Your task to perform on an android device: Search for bose quietcomfort 35 on costco.com, select the first entry, add it to the cart, then select checkout. Image 0: 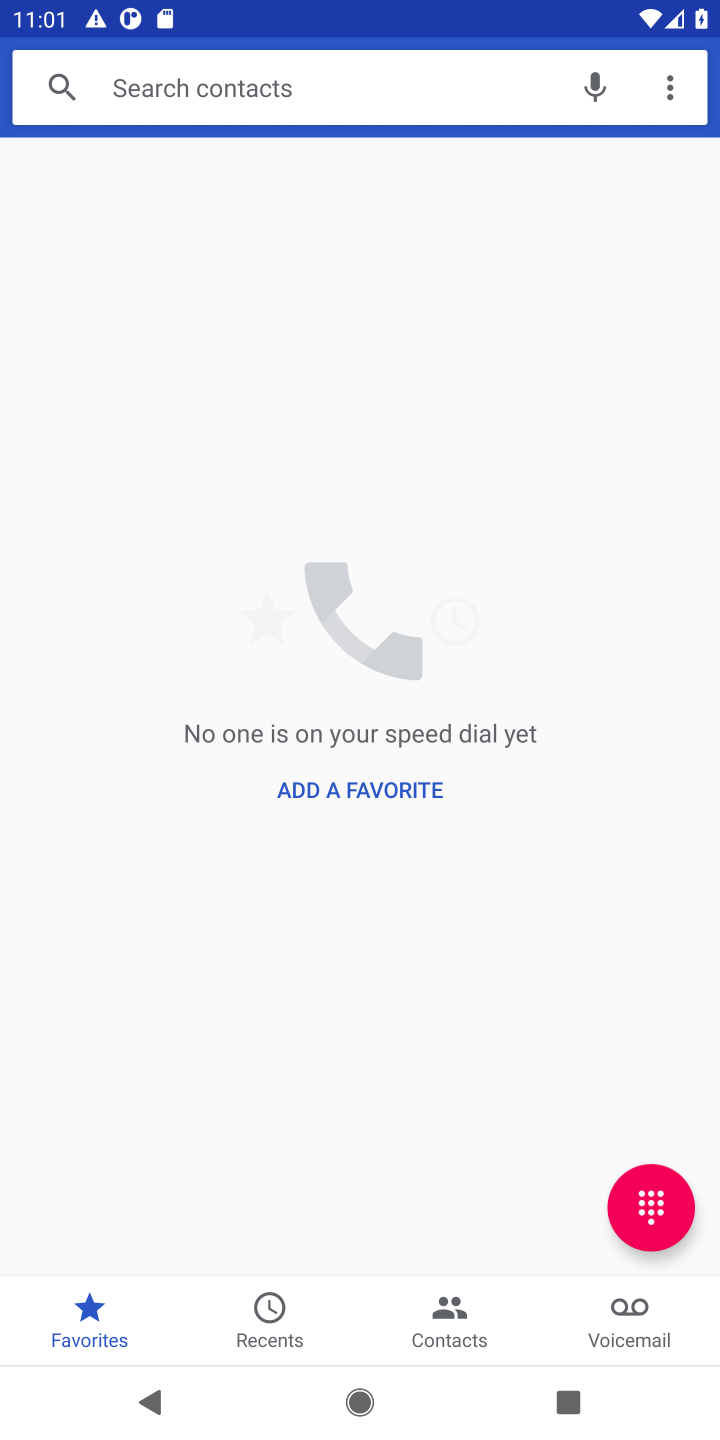
Step 0: press home button
Your task to perform on an android device: Search for bose quietcomfort 35 on costco.com, select the first entry, add it to the cart, then select checkout. Image 1: 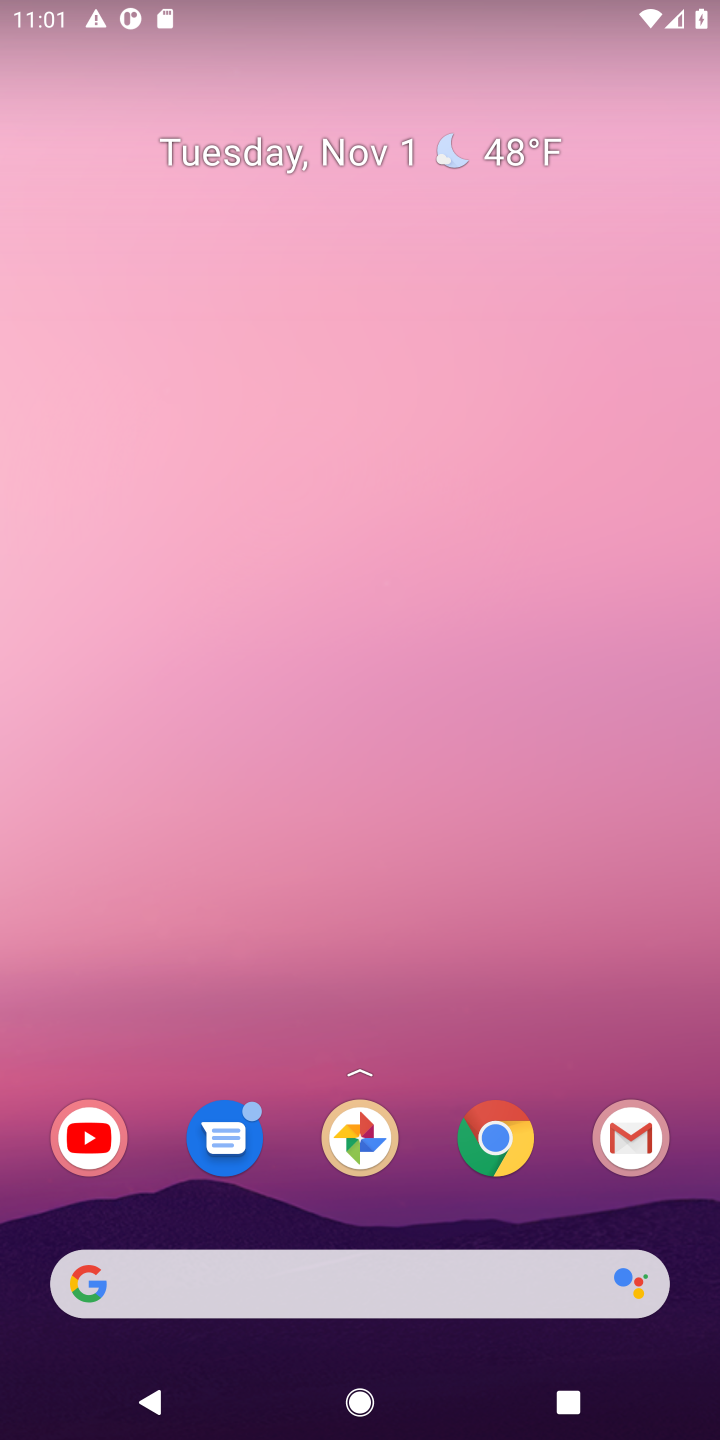
Step 1: drag from (425, 1080) to (459, 7)
Your task to perform on an android device: Search for bose quietcomfort 35 on costco.com, select the first entry, add it to the cart, then select checkout. Image 2: 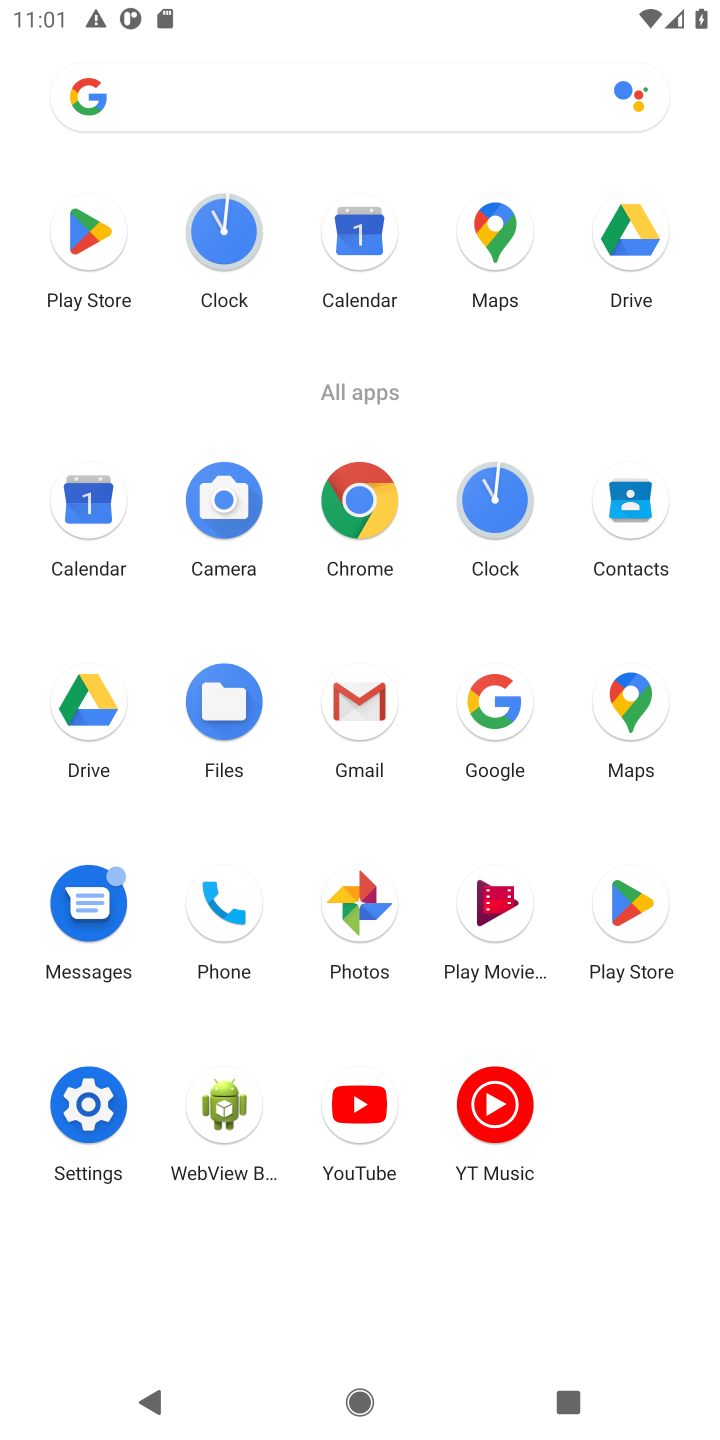
Step 2: click (354, 497)
Your task to perform on an android device: Search for bose quietcomfort 35 on costco.com, select the first entry, add it to the cart, then select checkout. Image 3: 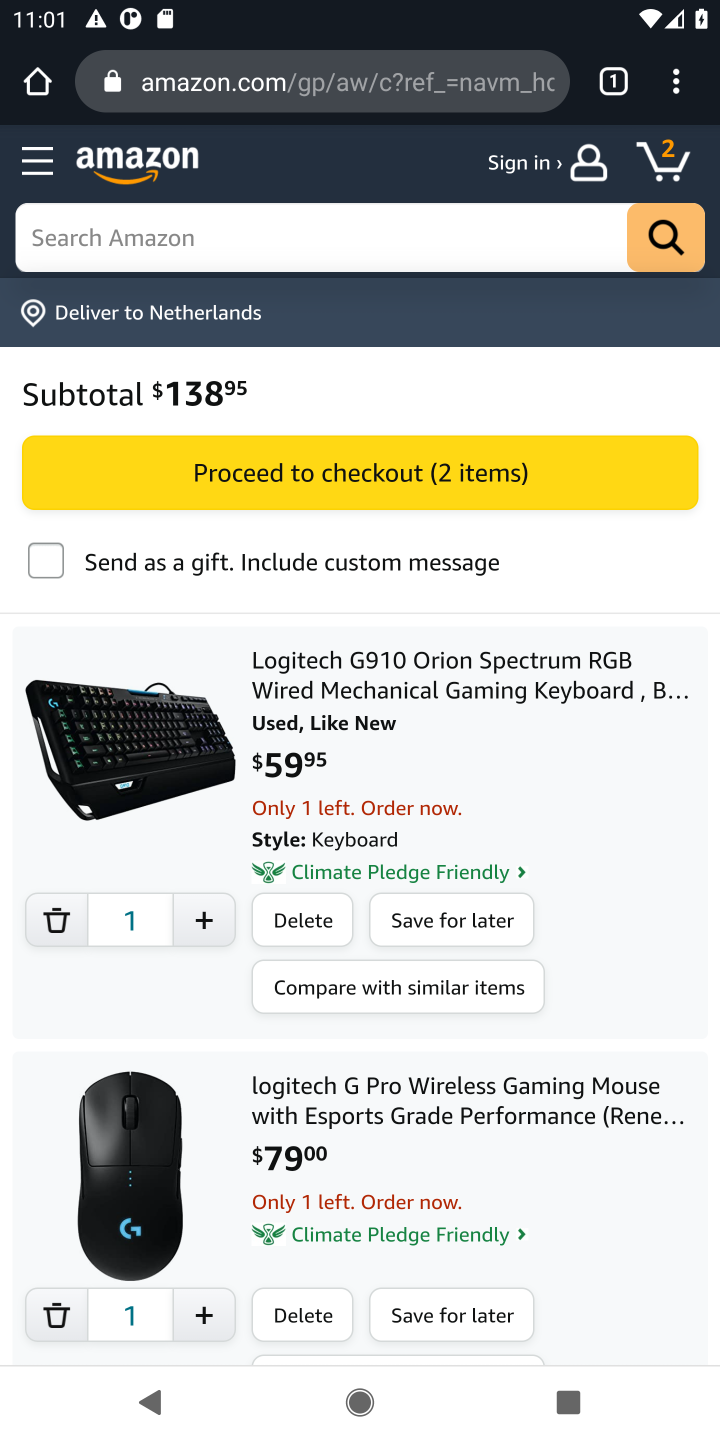
Step 3: click (142, 218)
Your task to perform on an android device: Search for bose quietcomfort 35 on costco.com, select the first entry, add it to the cart, then select checkout. Image 4: 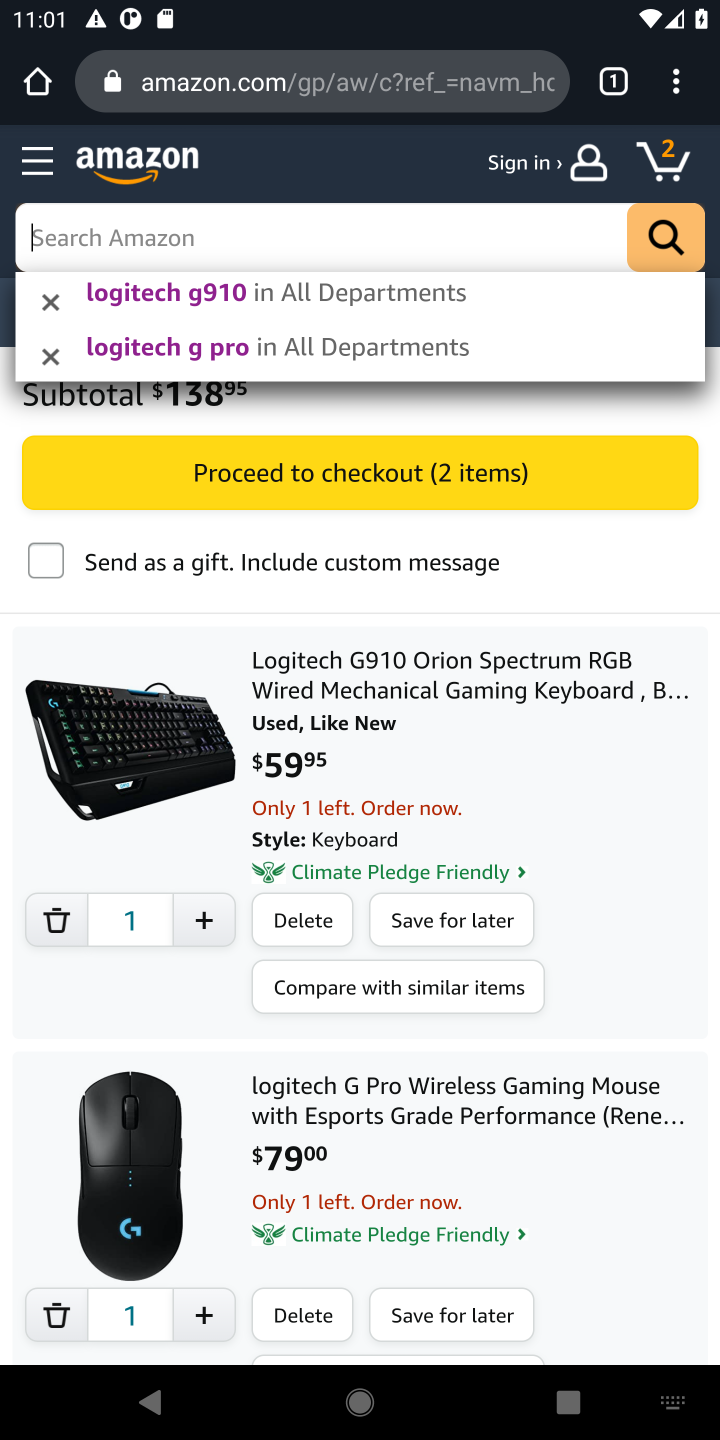
Step 4: click (192, 85)
Your task to perform on an android device: Search for bose quietcomfort 35 on costco.com, select the first entry, add it to the cart, then select checkout. Image 5: 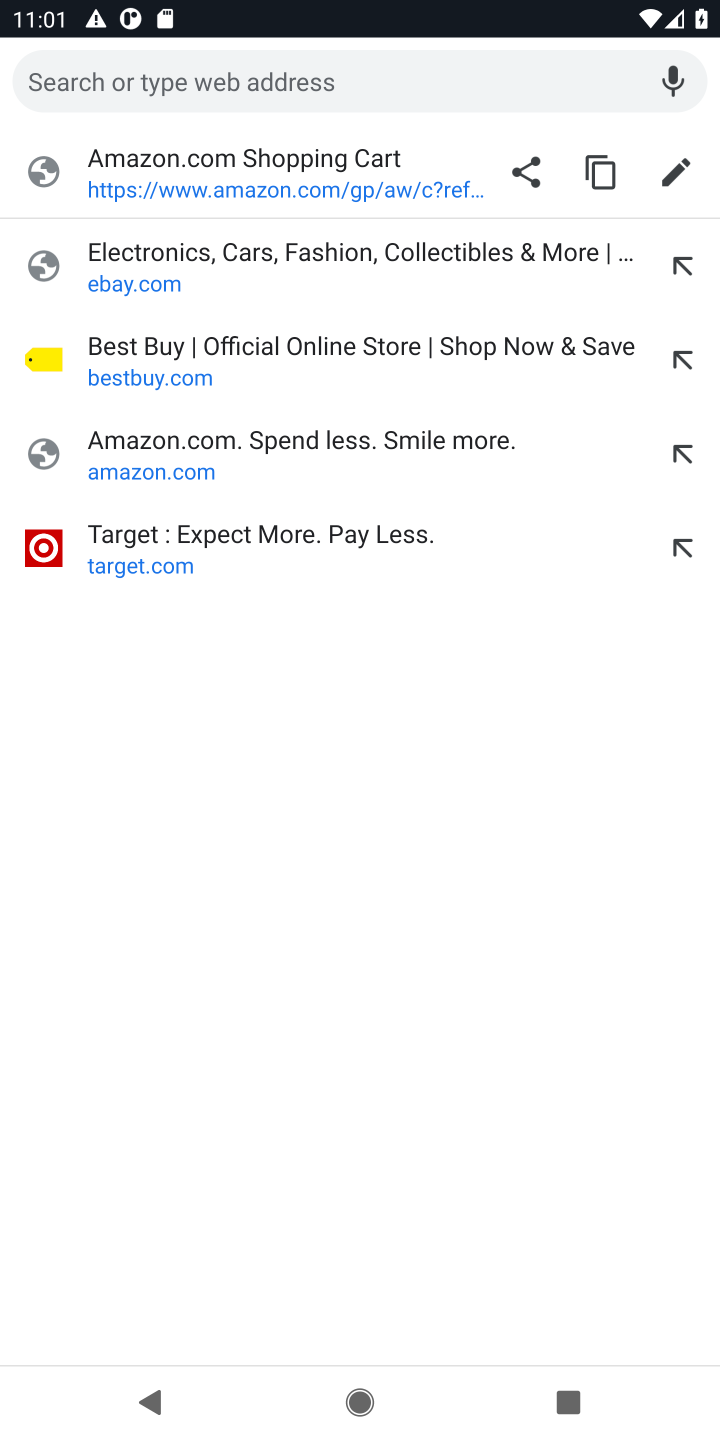
Step 5: type "costco"
Your task to perform on an android device: Search for bose quietcomfort 35 on costco.com, select the first entry, add it to the cart, then select checkout. Image 6: 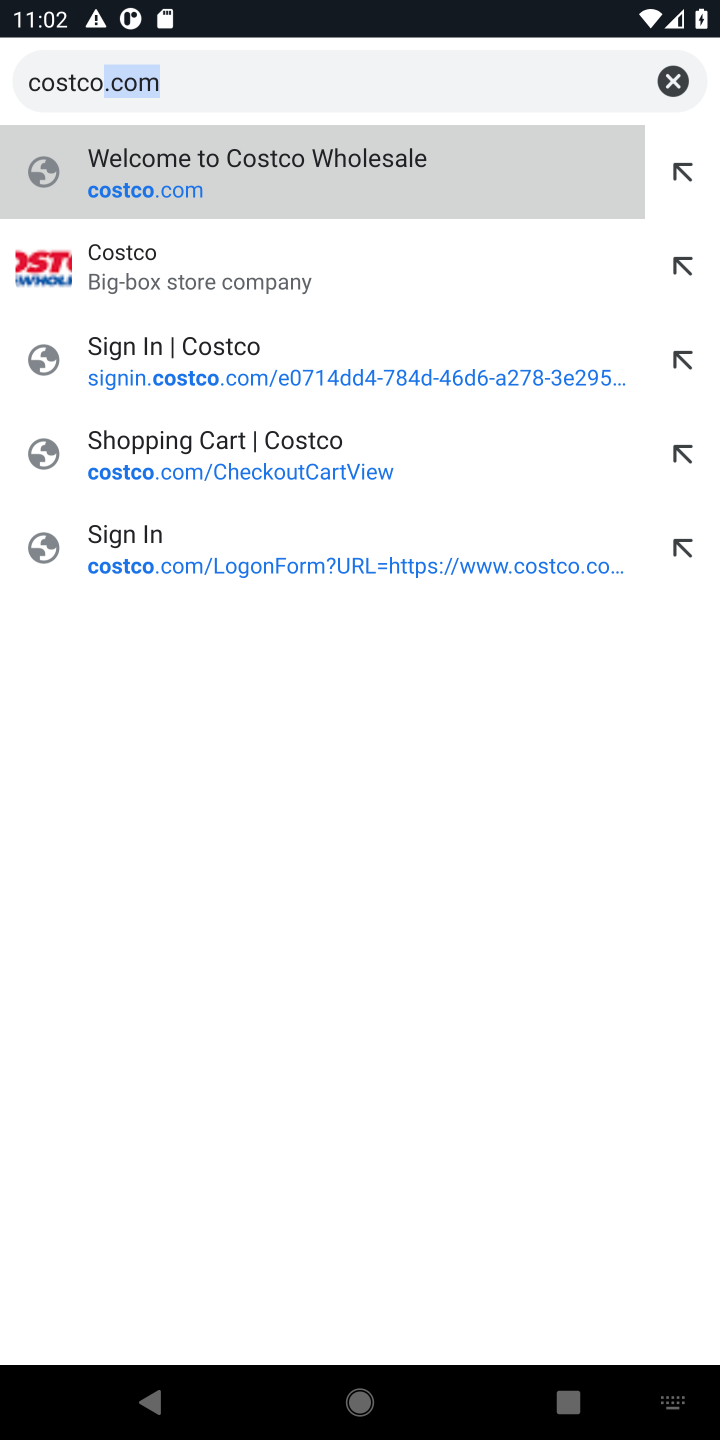
Step 6: type ""
Your task to perform on an android device: Search for bose quietcomfort 35 on costco.com, select the first entry, add it to the cart, then select checkout. Image 7: 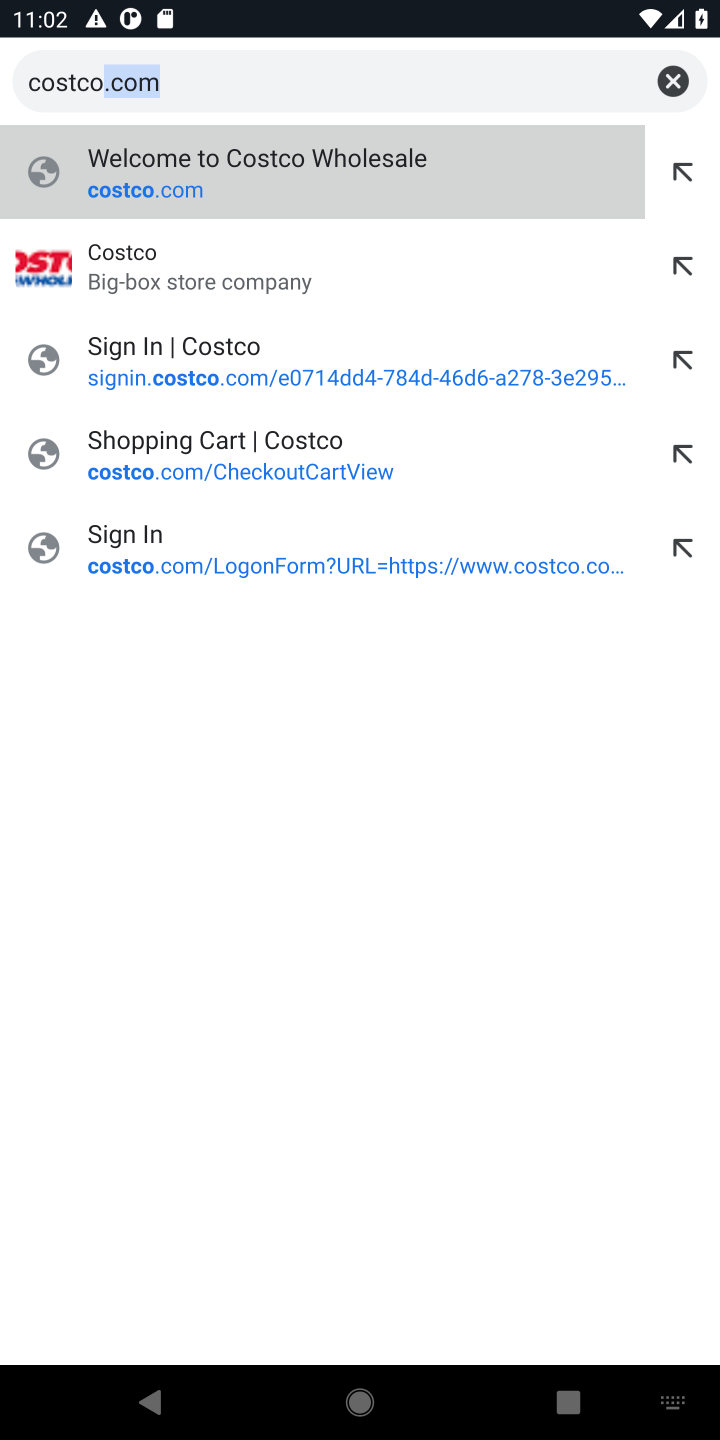
Step 7: click (211, 183)
Your task to perform on an android device: Search for bose quietcomfort 35 on costco.com, select the first entry, add it to the cart, then select checkout. Image 8: 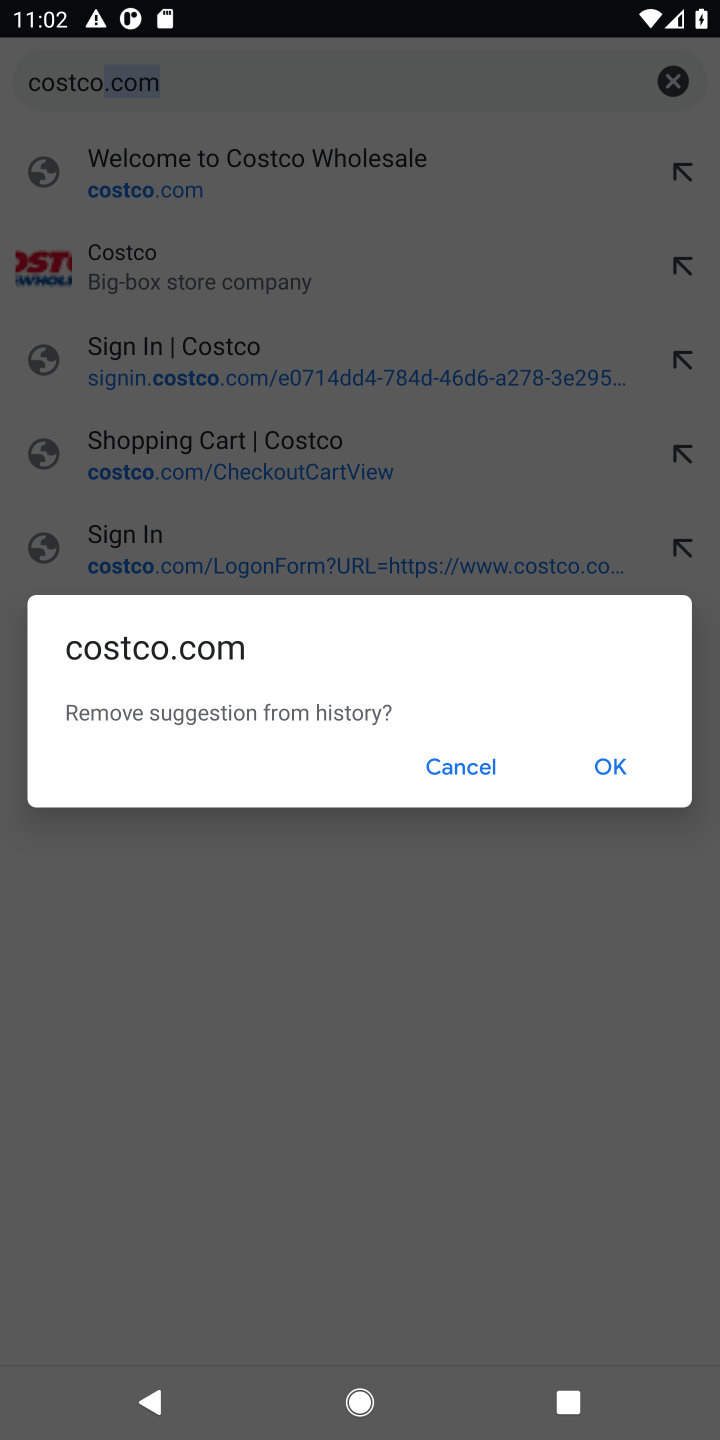
Step 8: click (460, 769)
Your task to perform on an android device: Search for bose quietcomfort 35 on costco.com, select the first entry, add it to the cart, then select checkout. Image 9: 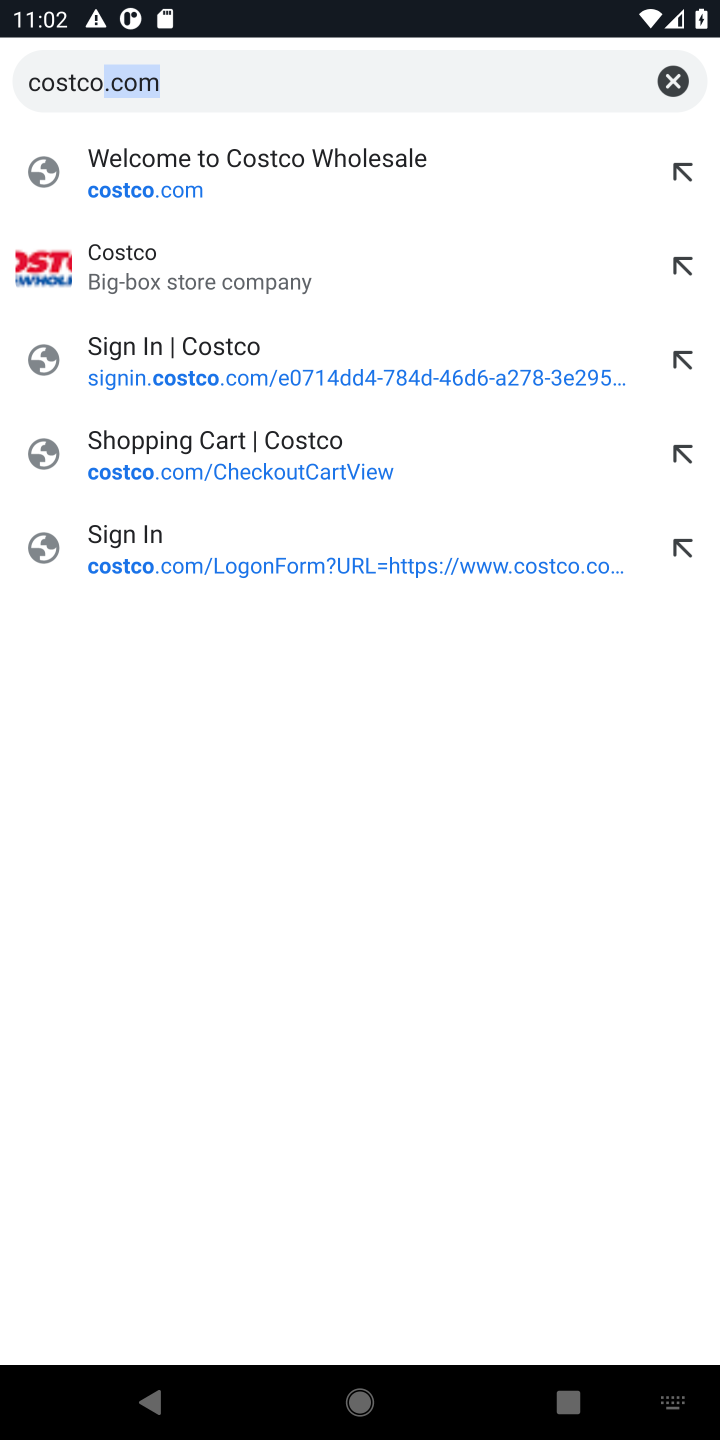
Step 9: click (126, 180)
Your task to perform on an android device: Search for bose quietcomfort 35 on costco.com, select the first entry, add it to the cart, then select checkout. Image 10: 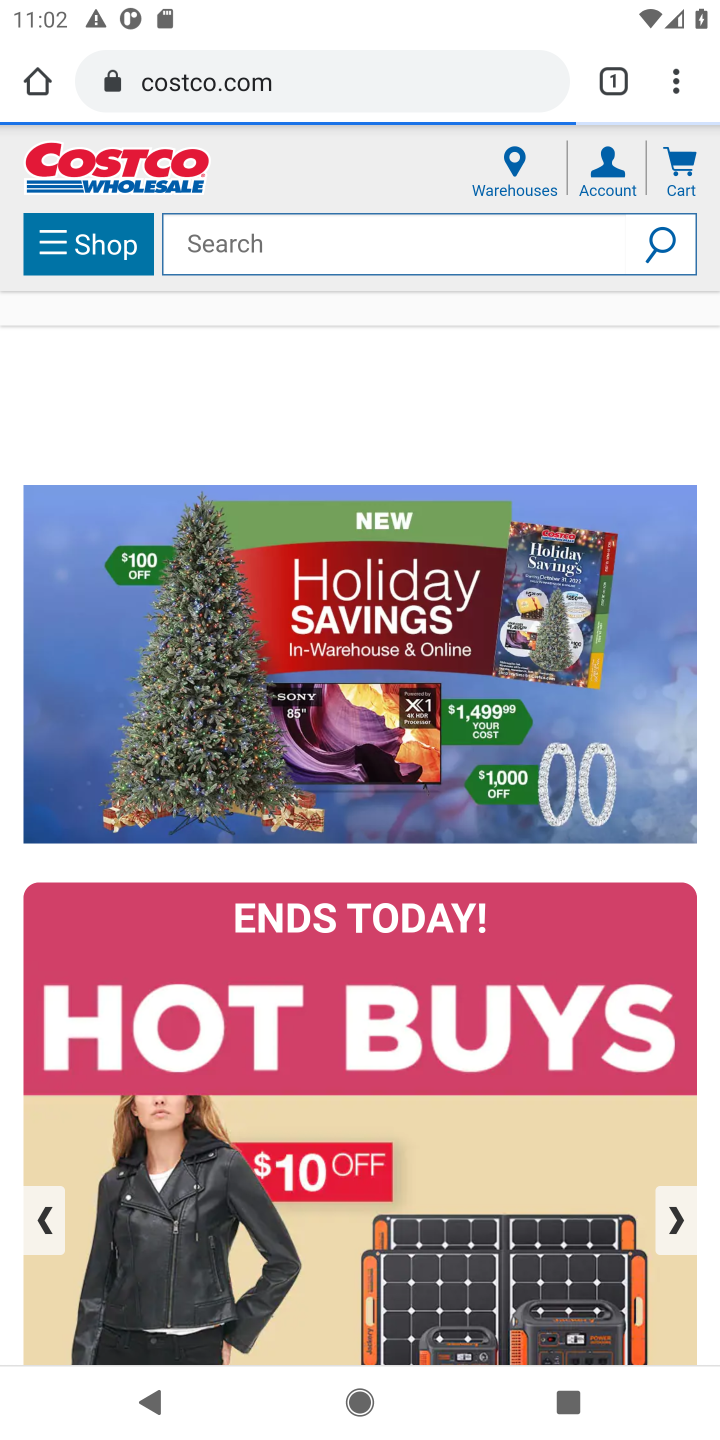
Step 10: click (263, 235)
Your task to perform on an android device: Search for bose quietcomfort 35 on costco.com, select the first entry, add it to the cart, then select checkout. Image 11: 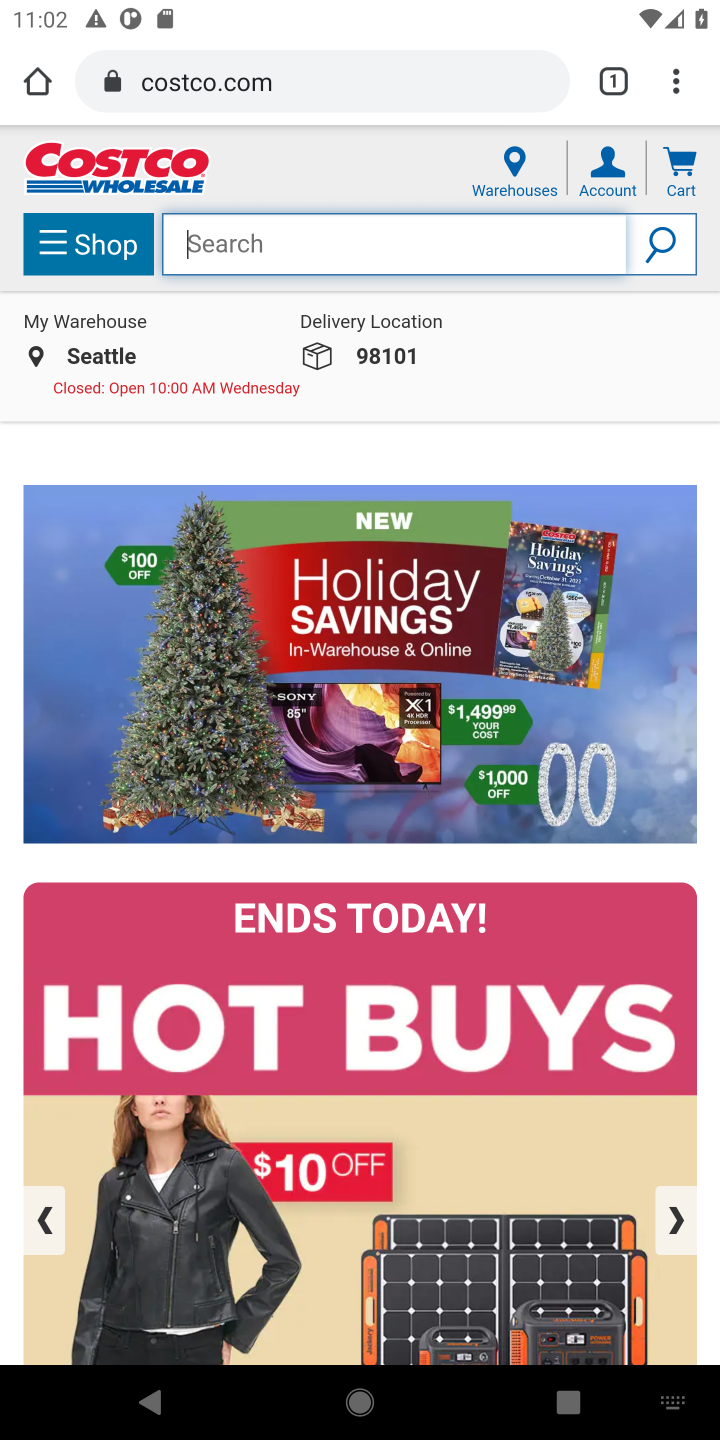
Step 11: click (255, 235)
Your task to perform on an android device: Search for bose quietcomfort 35 on costco.com, select the first entry, add it to the cart, then select checkout. Image 12: 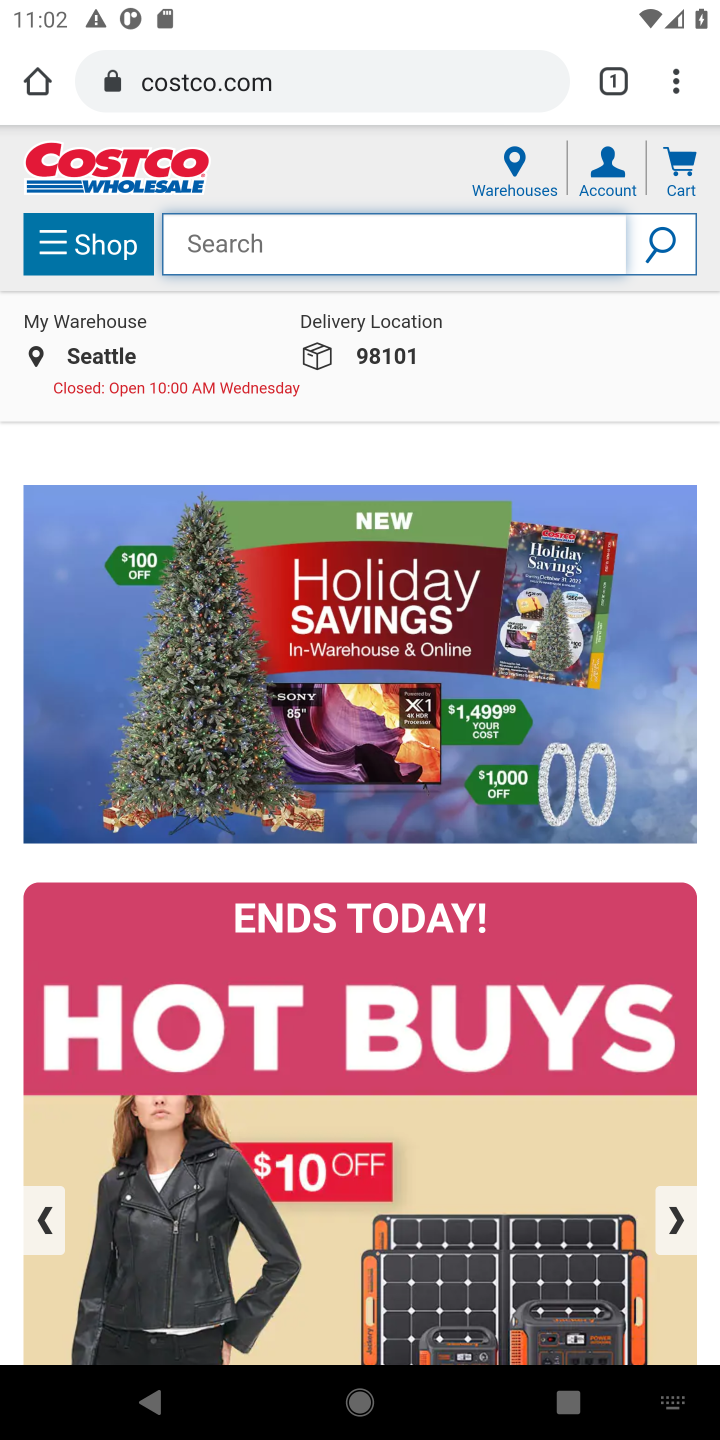
Step 12: type "bose quietcomfort 35"
Your task to perform on an android device: Search for bose quietcomfort 35 on costco.com, select the first entry, add it to the cart, then select checkout. Image 13: 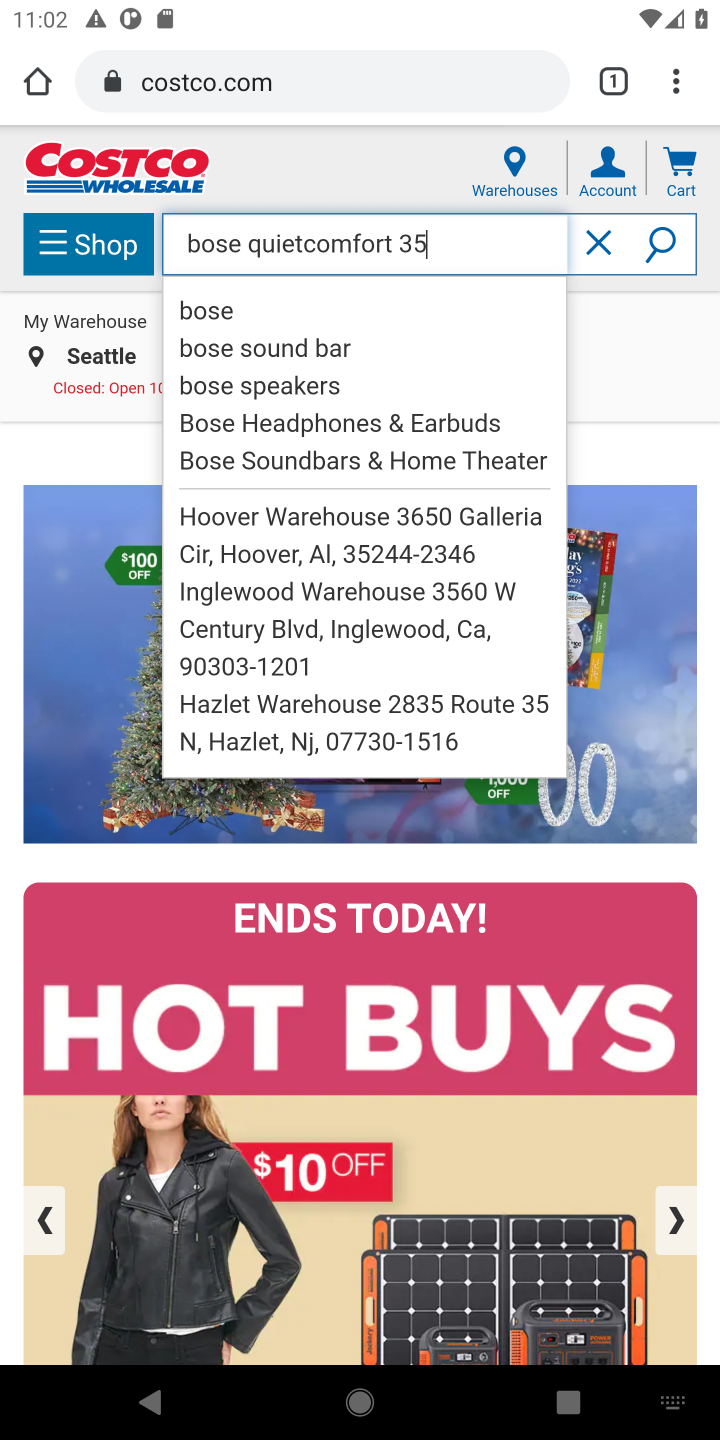
Step 13: click (423, 721)
Your task to perform on an android device: Search for bose quietcomfort 35 on costco.com, select the first entry, add it to the cart, then select checkout. Image 14: 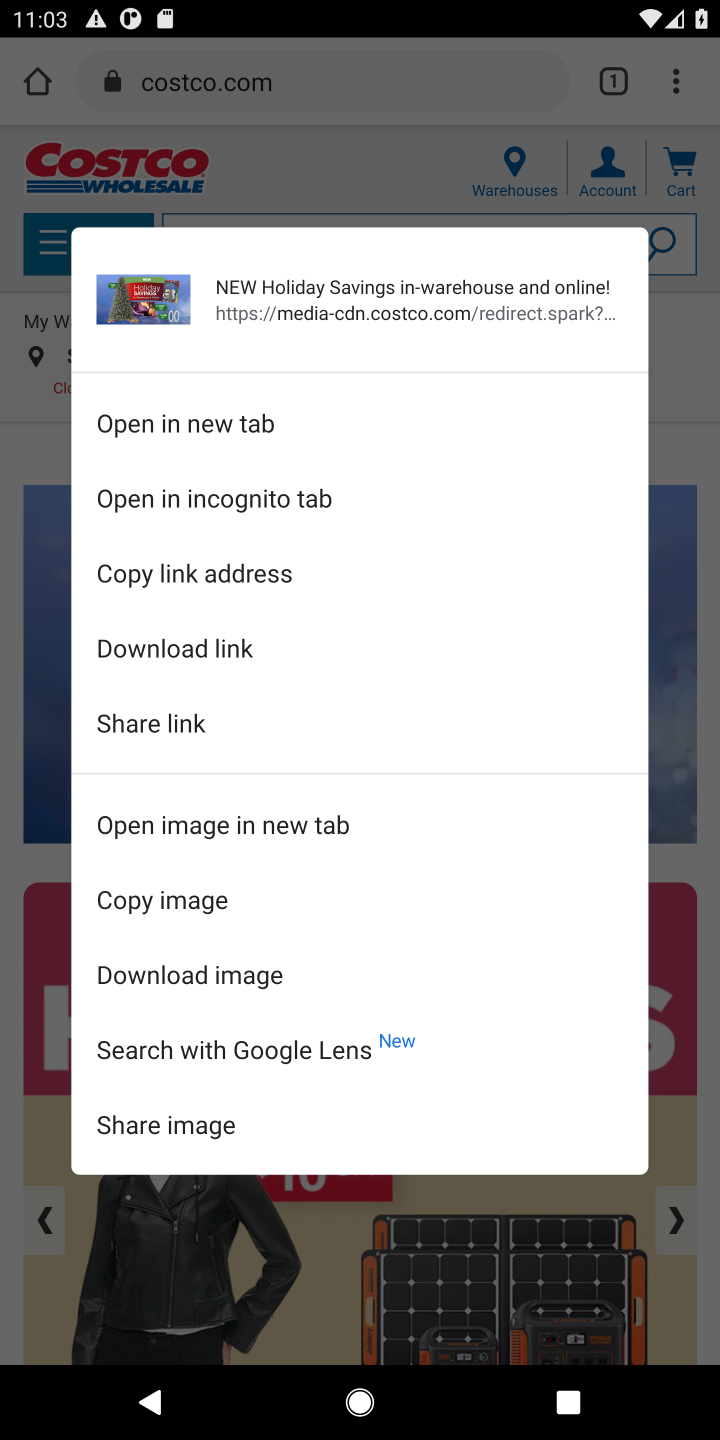
Step 14: click (43, 864)
Your task to perform on an android device: Search for bose quietcomfort 35 on costco.com, select the first entry, add it to the cart, then select checkout. Image 15: 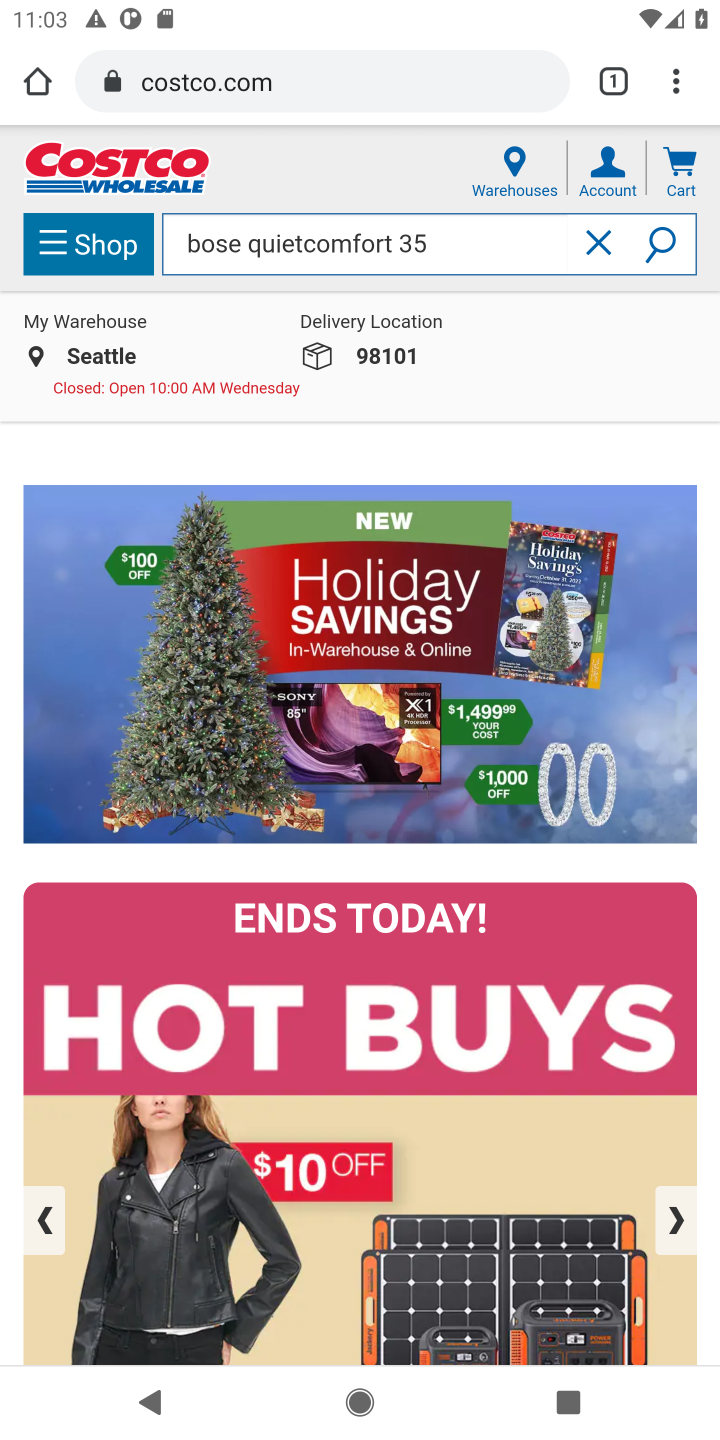
Step 15: click (668, 240)
Your task to perform on an android device: Search for bose quietcomfort 35 on costco.com, select the first entry, add it to the cart, then select checkout. Image 16: 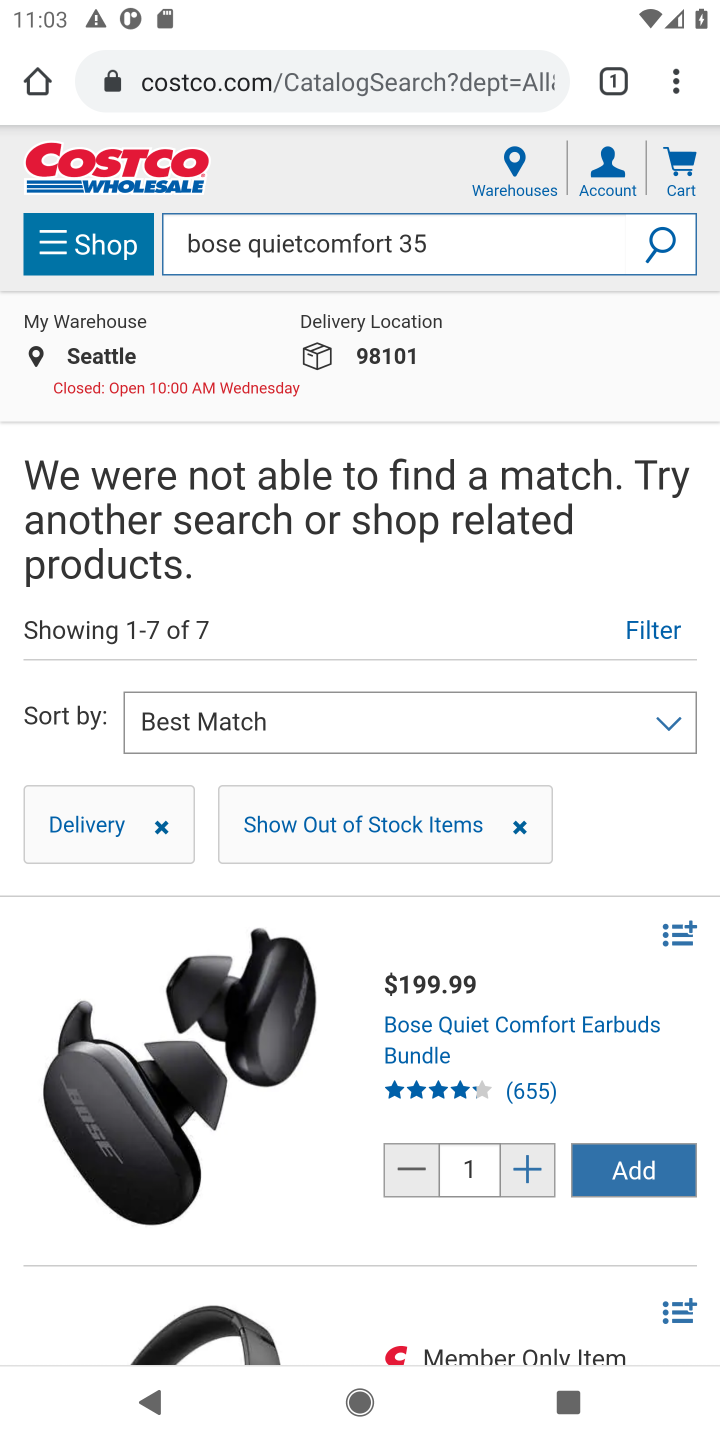
Step 16: click (438, 1034)
Your task to perform on an android device: Search for bose quietcomfort 35 on costco.com, select the first entry, add it to the cart, then select checkout. Image 17: 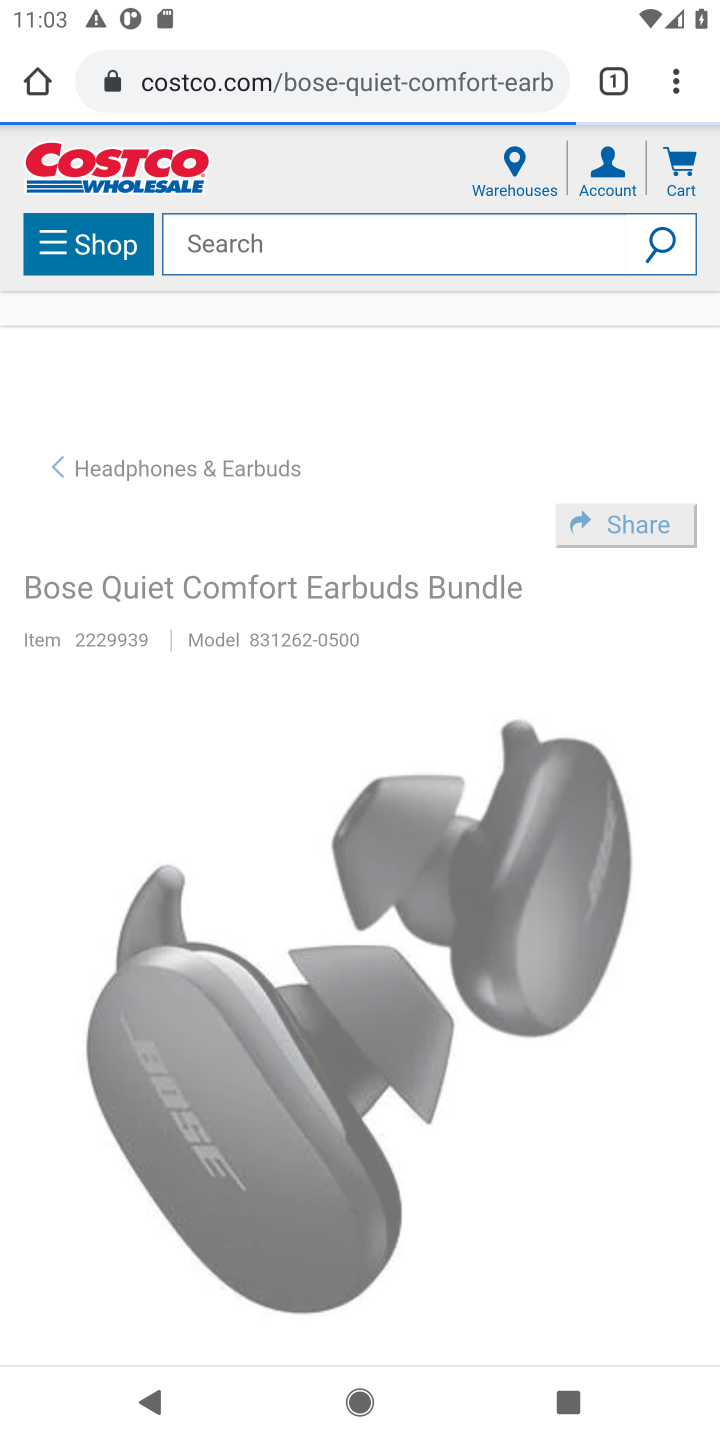
Step 17: drag from (489, 1302) to (412, 393)
Your task to perform on an android device: Search for bose quietcomfort 35 on costco.com, select the first entry, add it to the cart, then select checkout. Image 18: 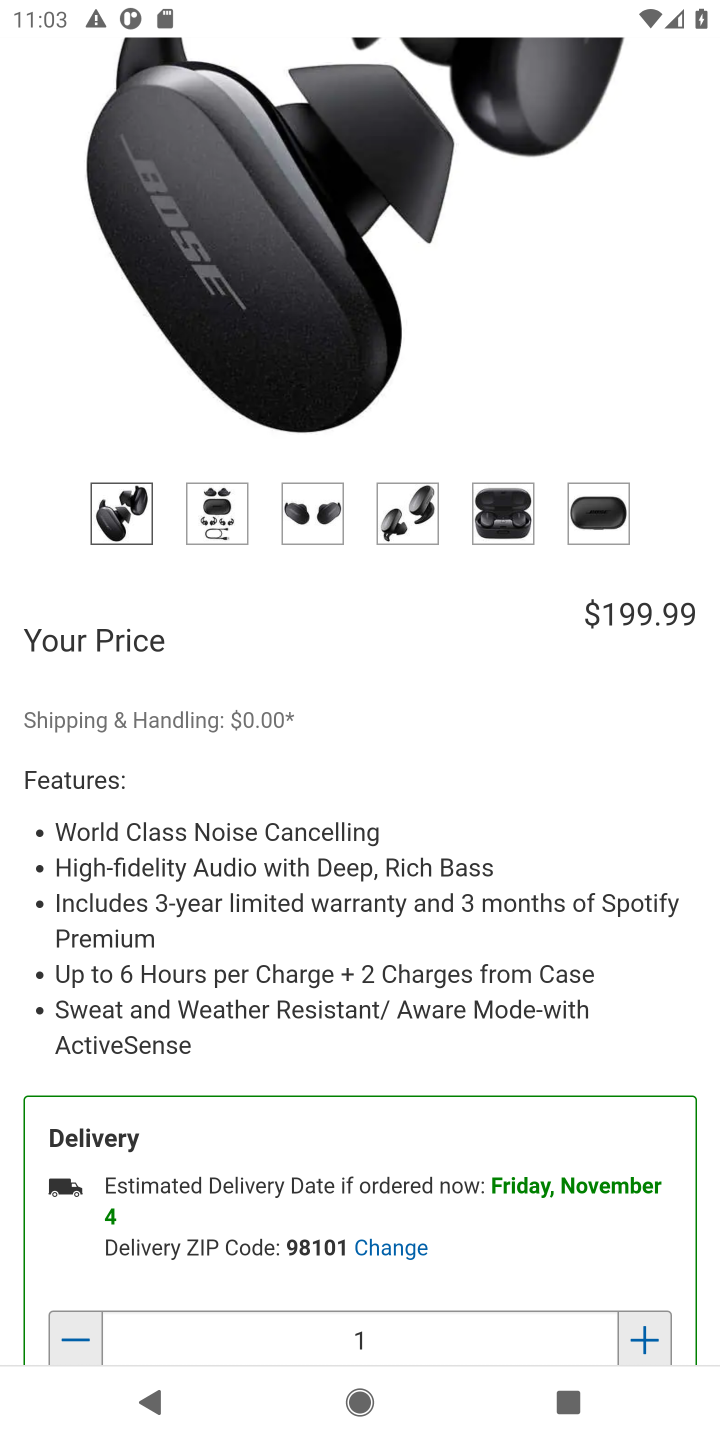
Step 18: drag from (366, 1091) to (342, 550)
Your task to perform on an android device: Search for bose quietcomfort 35 on costco.com, select the first entry, add it to the cart, then select checkout. Image 19: 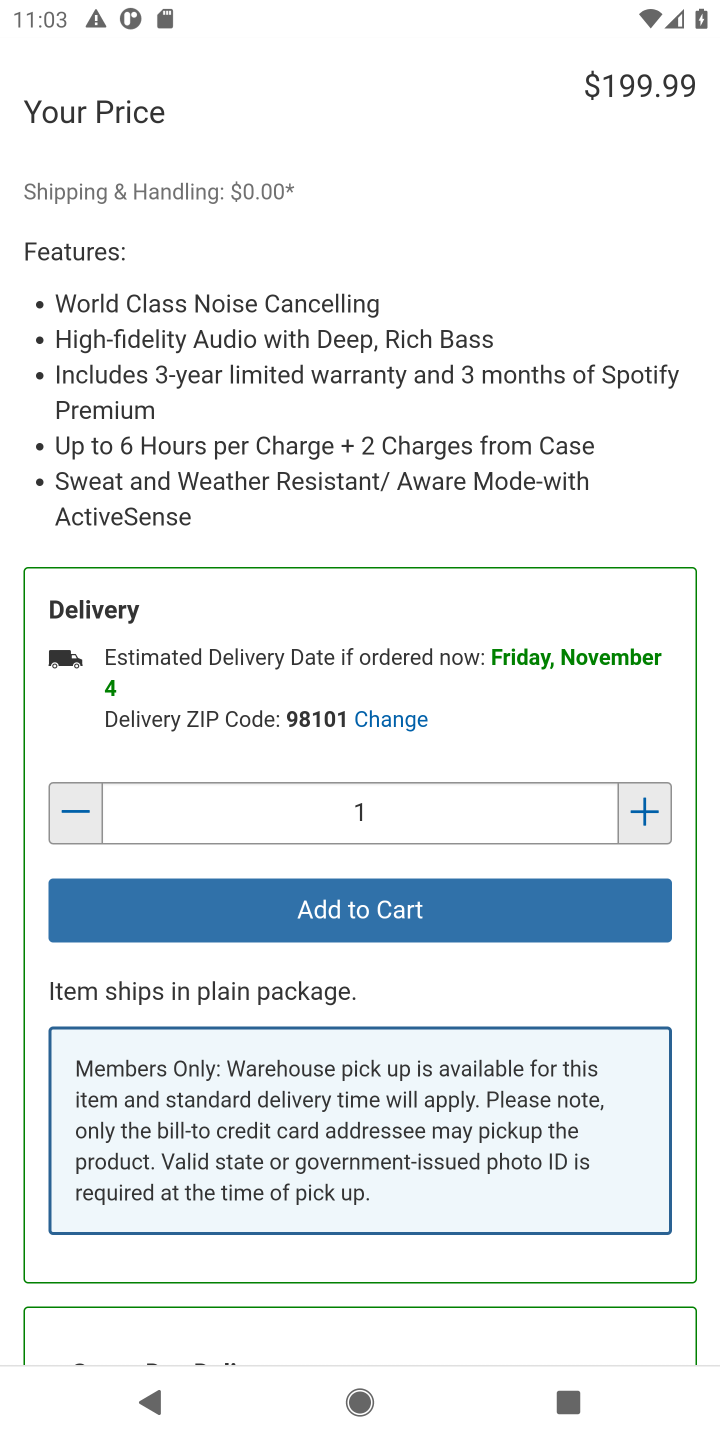
Step 19: click (351, 902)
Your task to perform on an android device: Search for bose quietcomfort 35 on costco.com, select the first entry, add it to the cart, then select checkout. Image 20: 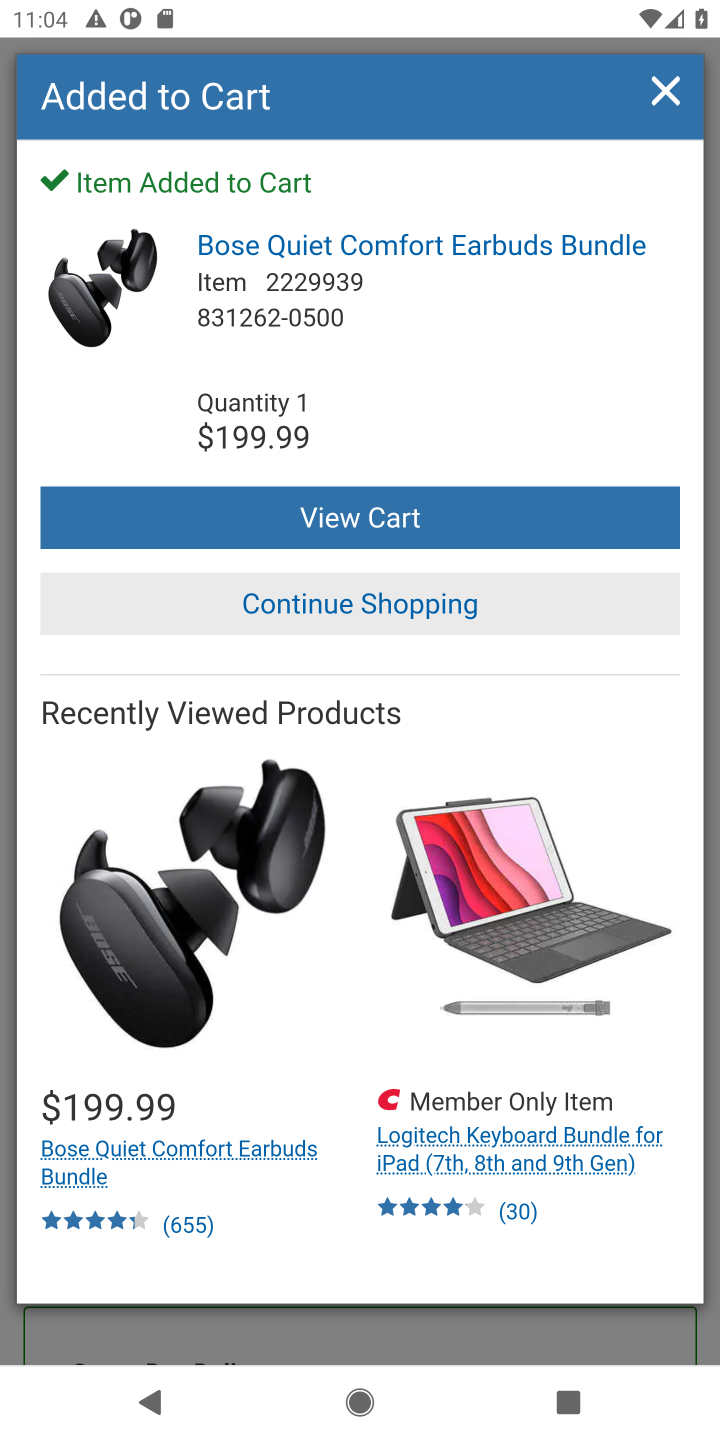
Step 20: click (377, 521)
Your task to perform on an android device: Search for bose quietcomfort 35 on costco.com, select the first entry, add it to the cart, then select checkout. Image 21: 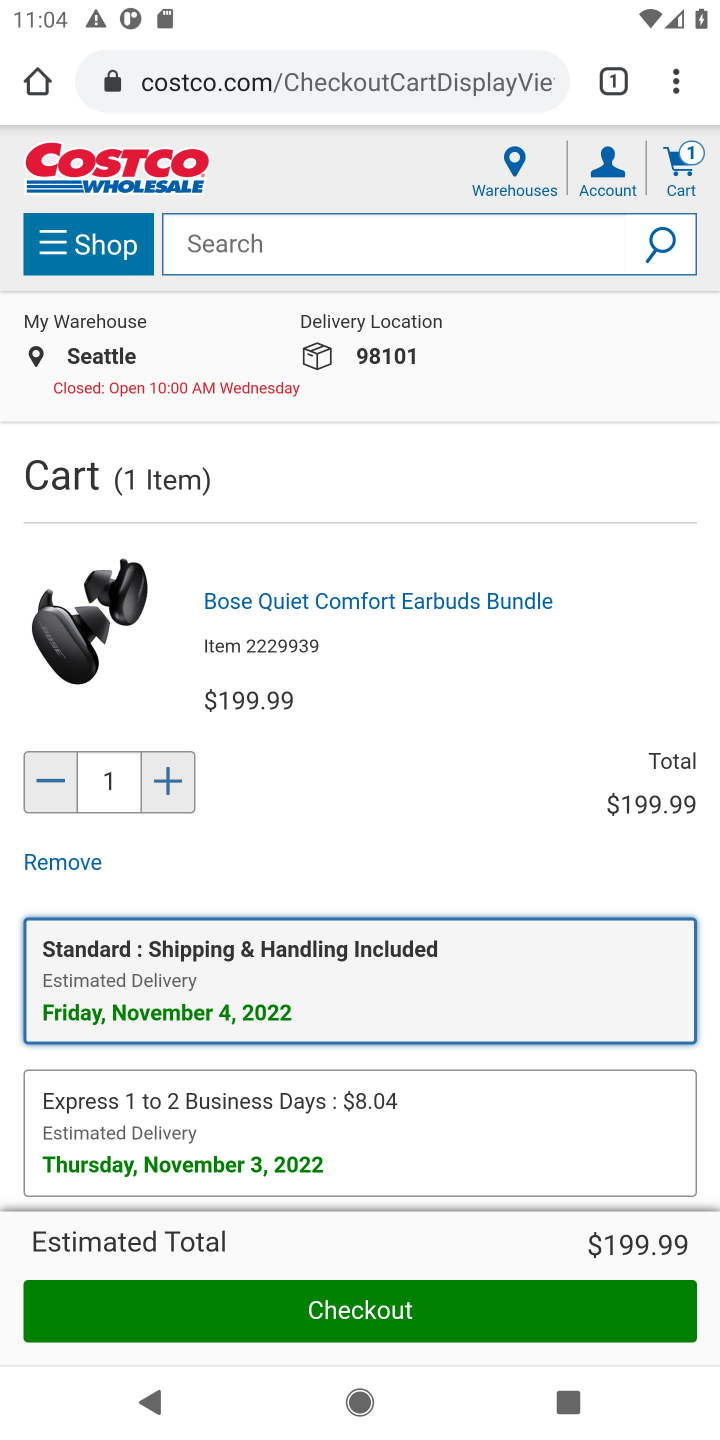
Step 21: click (371, 1311)
Your task to perform on an android device: Search for bose quietcomfort 35 on costco.com, select the first entry, add it to the cart, then select checkout. Image 22: 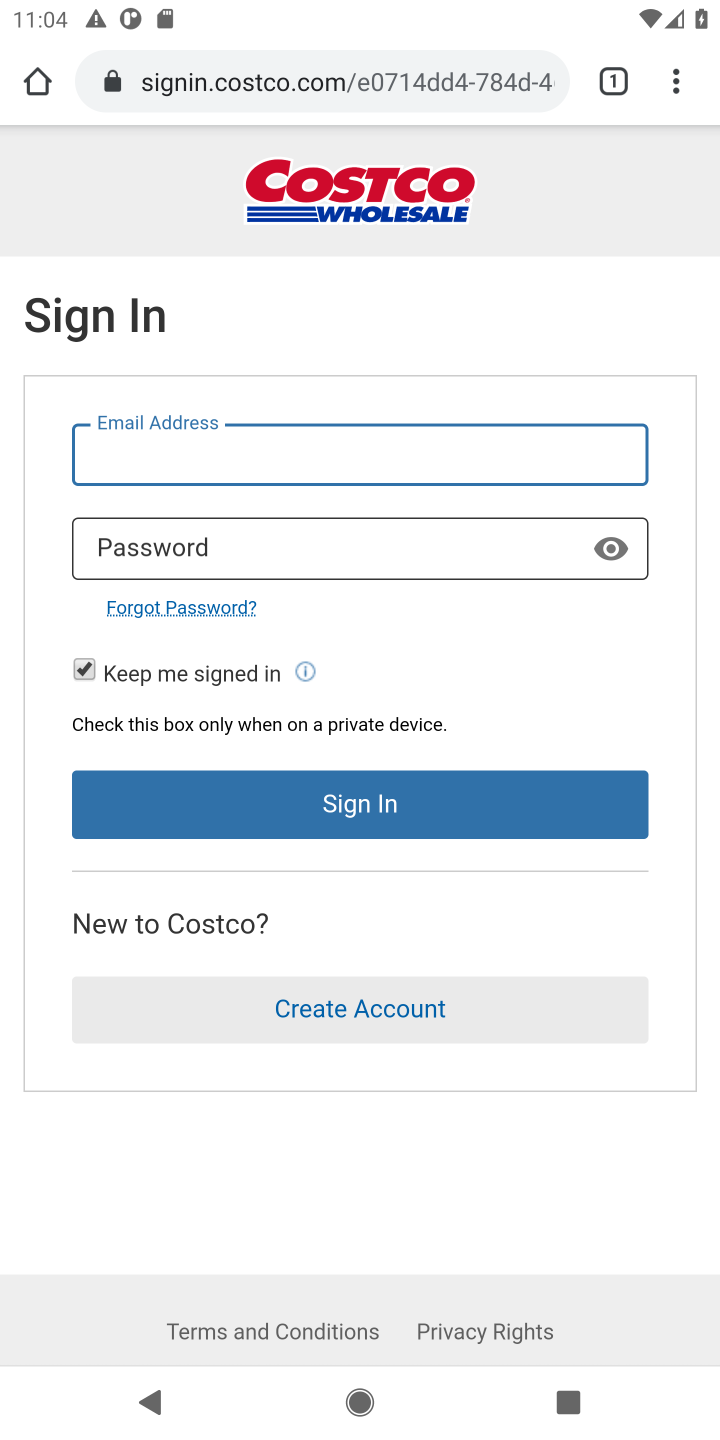
Step 22: task complete